Your task to perform on an android device: Open sound settings Image 0: 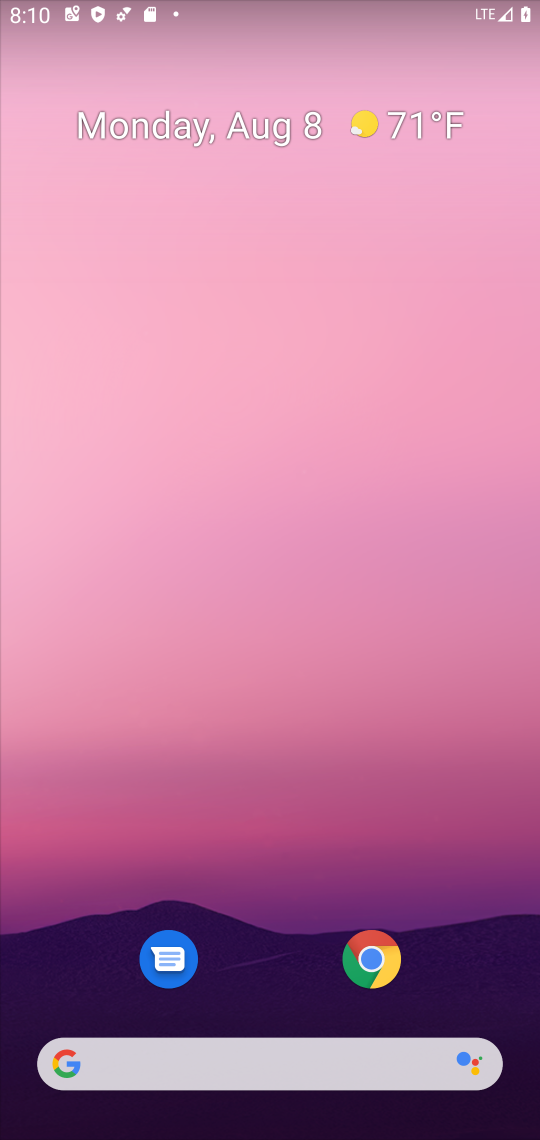
Step 0: drag from (483, 985) to (297, 45)
Your task to perform on an android device: Open sound settings Image 1: 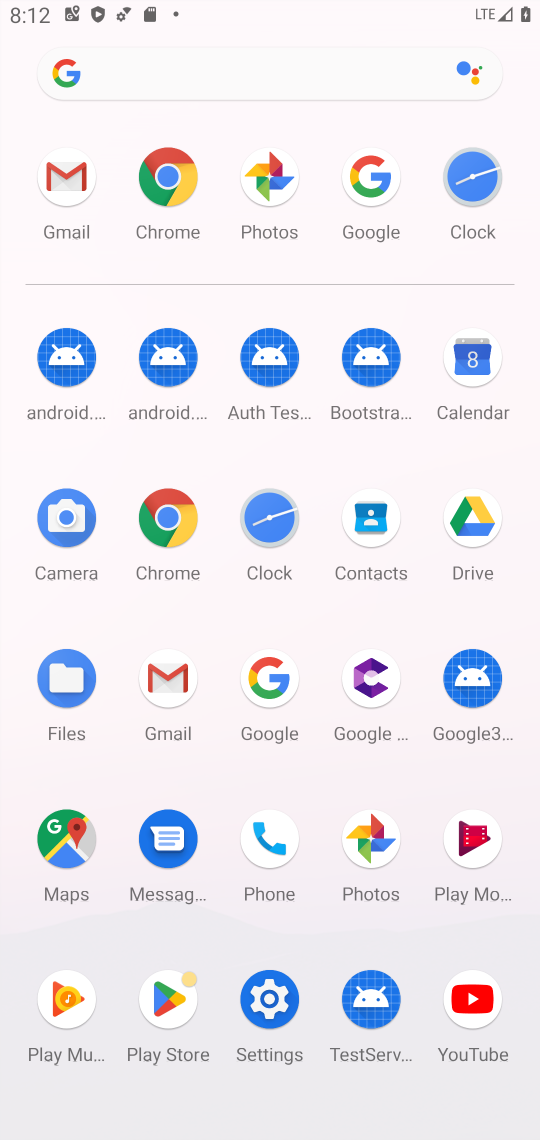
Step 1: click (285, 1006)
Your task to perform on an android device: Open sound settings Image 2: 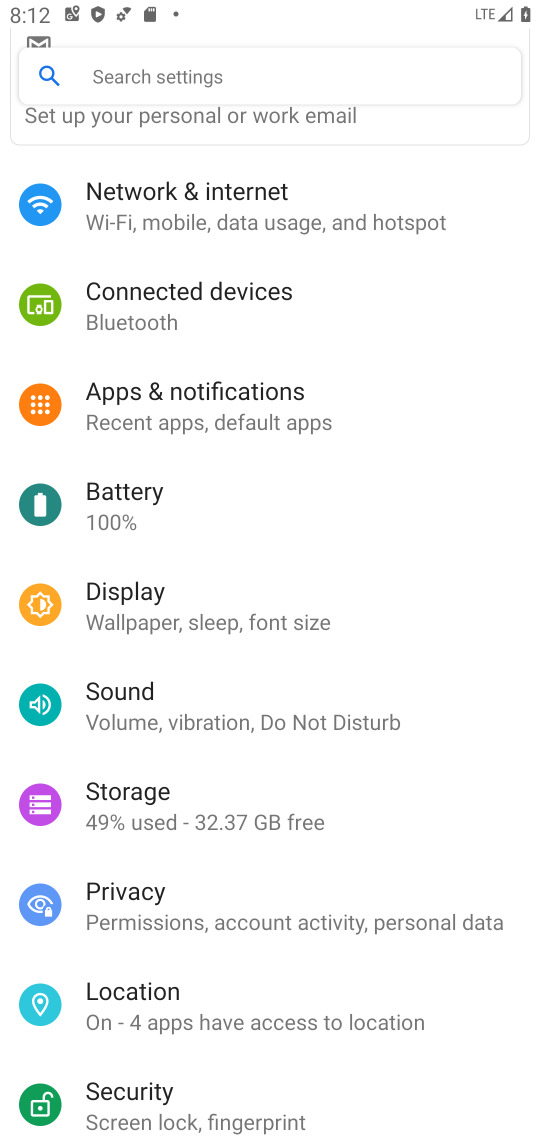
Step 2: click (158, 697)
Your task to perform on an android device: Open sound settings Image 3: 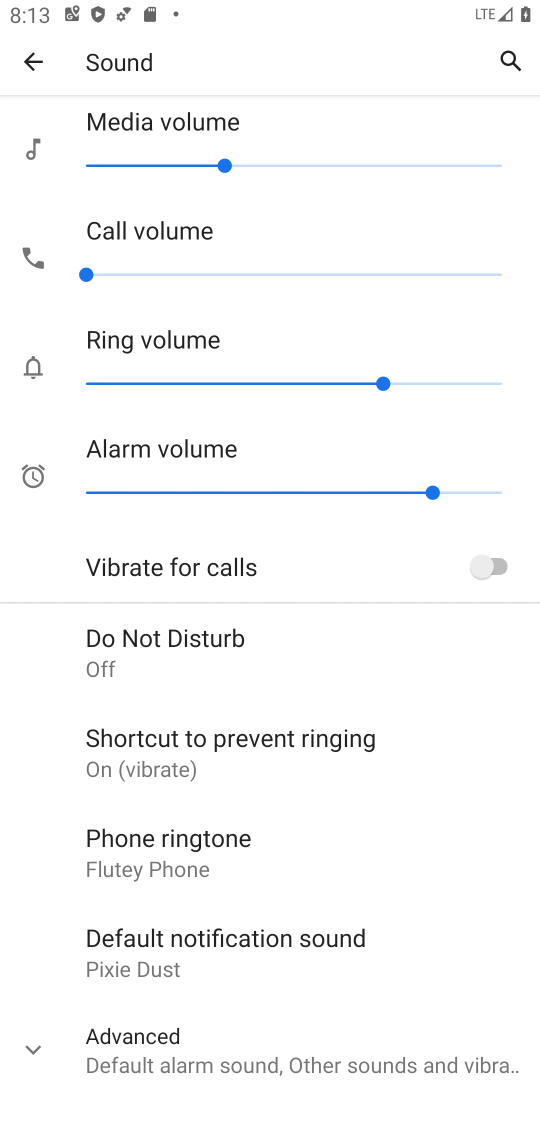
Step 3: task complete